Your task to perform on an android device: Go to Google maps Image 0: 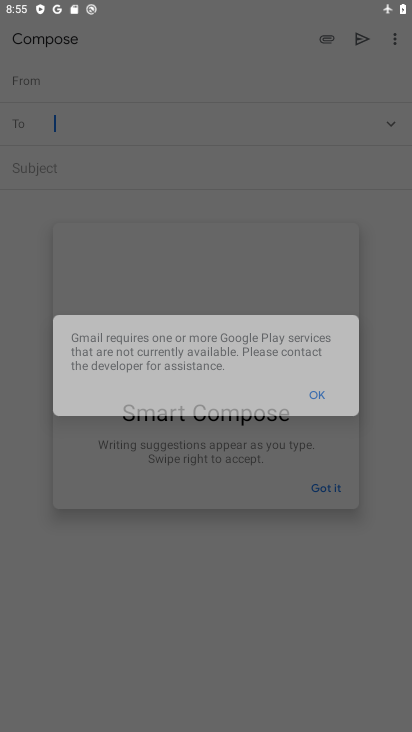
Step 0: drag from (286, 3) to (346, 508)
Your task to perform on an android device: Go to Google maps Image 1: 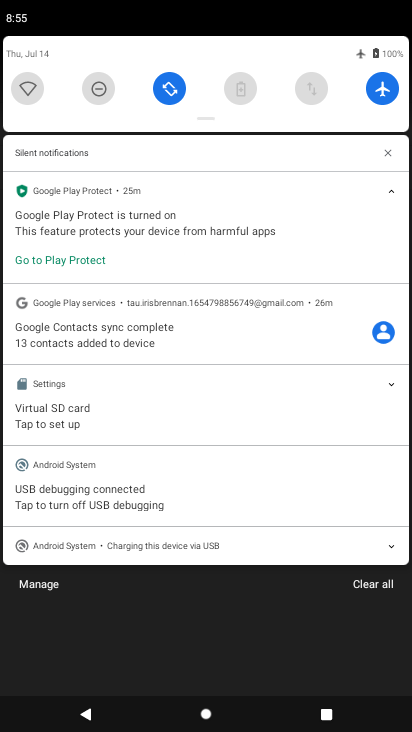
Step 1: press home button
Your task to perform on an android device: Go to Google maps Image 2: 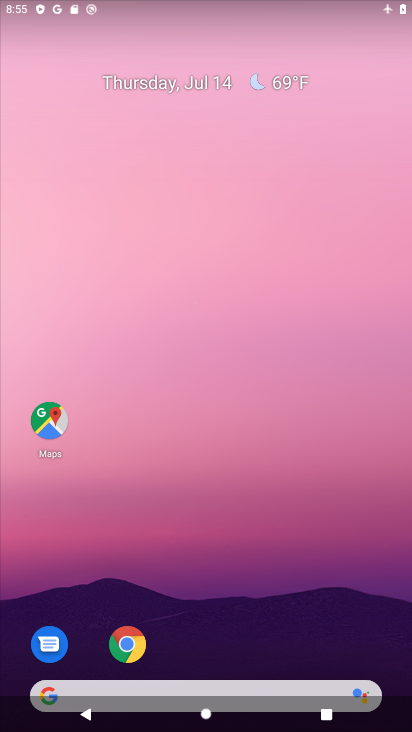
Step 2: click (47, 421)
Your task to perform on an android device: Go to Google maps Image 3: 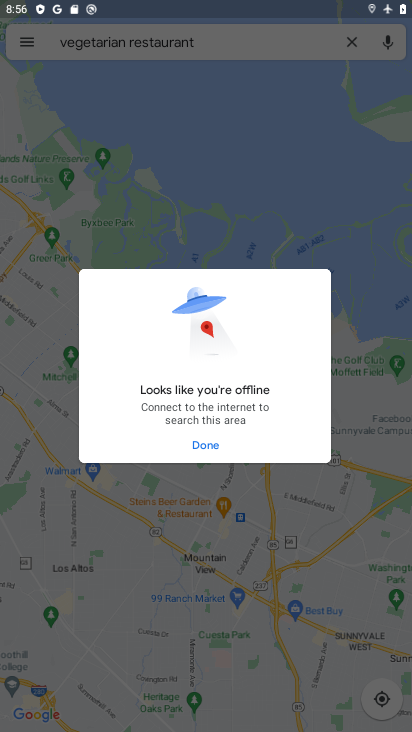
Step 3: drag from (317, 2) to (293, 557)
Your task to perform on an android device: Go to Google maps Image 4: 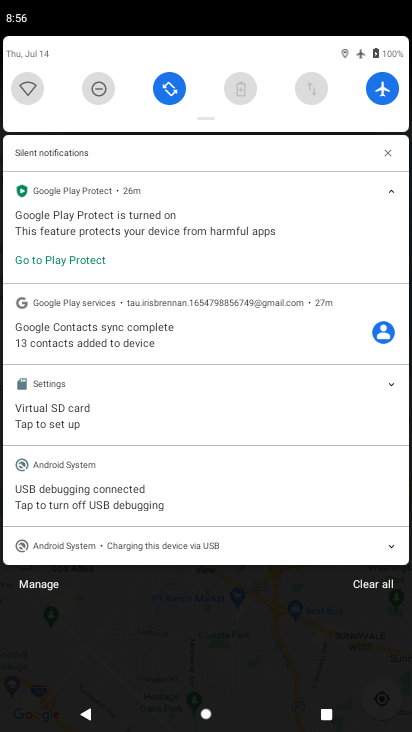
Step 4: click (380, 84)
Your task to perform on an android device: Go to Google maps Image 5: 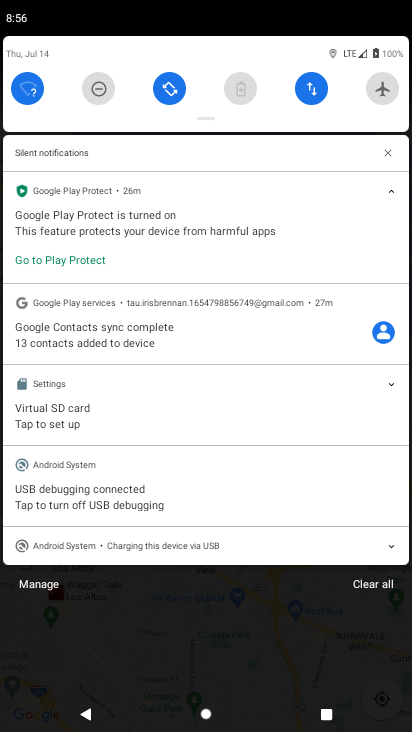
Step 5: task complete